Your task to perform on an android device: turn on showing notifications on the lock screen Image 0: 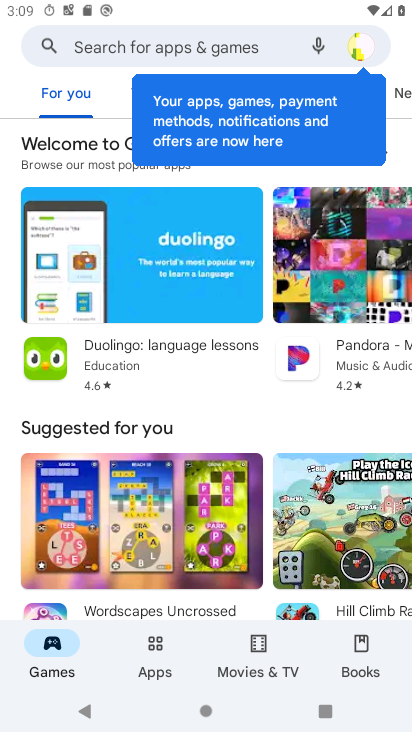
Step 0: press home button
Your task to perform on an android device: turn on showing notifications on the lock screen Image 1: 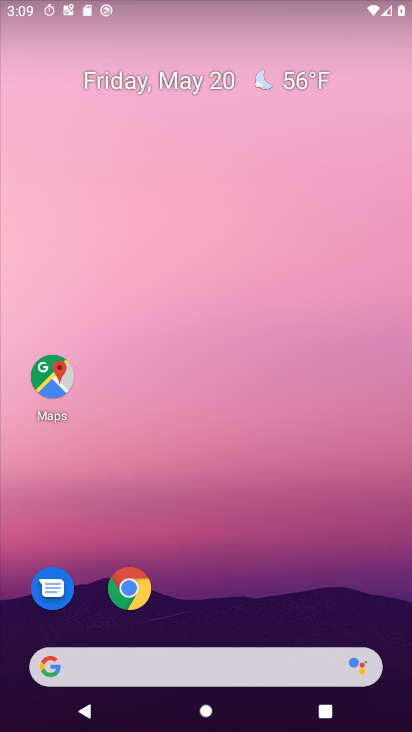
Step 1: drag from (19, 565) to (148, 284)
Your task to perform on an android device: turn on showing notifications on the lock screen Image 2: 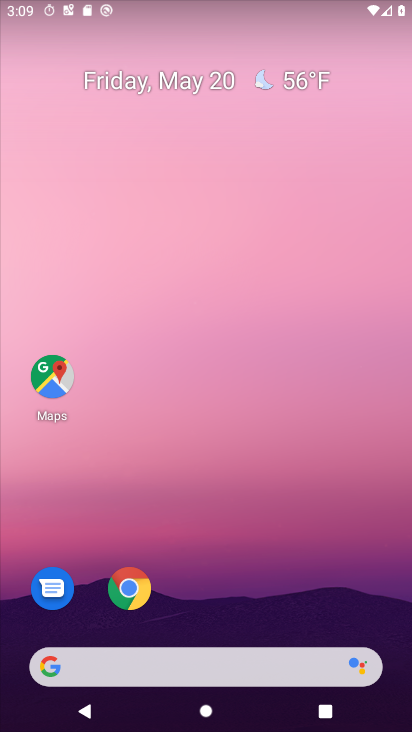
Step 2: drag from (13, 646) to (168, 195)
Your task to perform on an android device: turn on showing notifications on the lock screen Image 3: 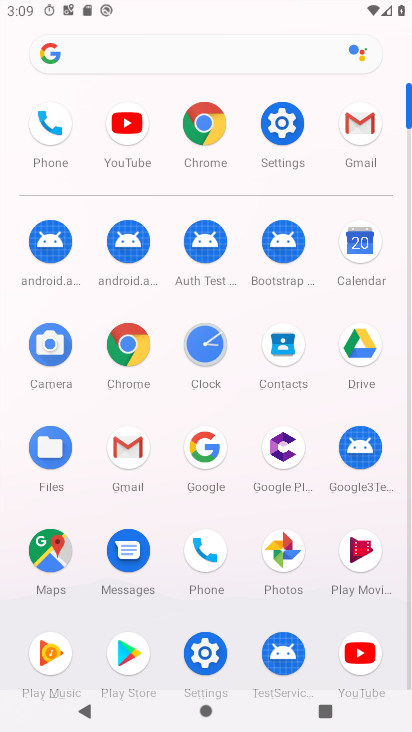
Step 3: click (278, 107)
Your task to perform on an android device: turn on showing notifications on the lock screen Image 4: 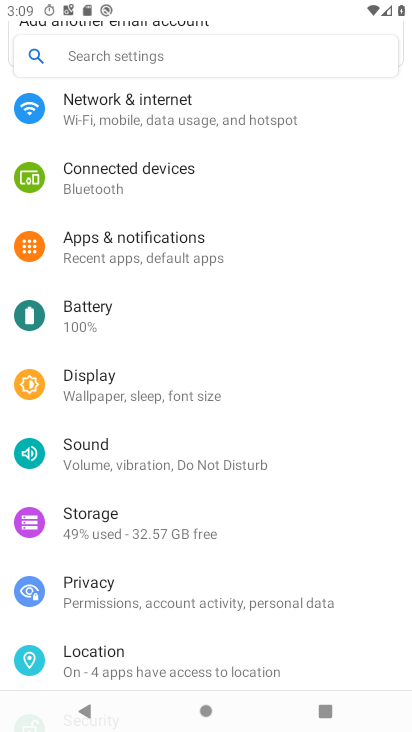
Step 4: click (131, 245)
Your task to perform on an android device: turn on showing notifications on the lock screen Image 5: 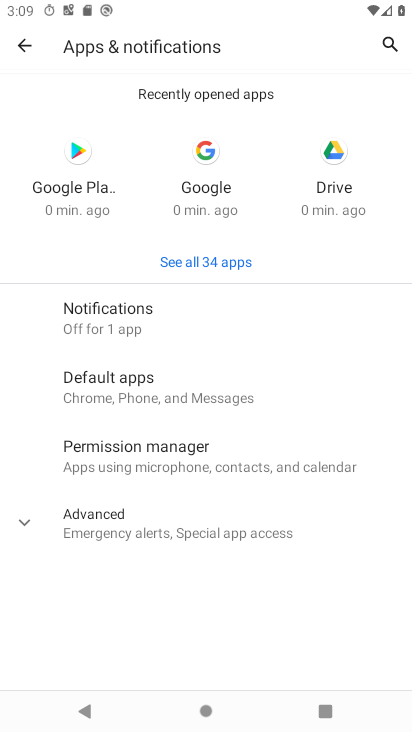
Step 5: click (79, 313)
Your task to perform on an android device: turn on showing notifications on the lock screen Image 6: 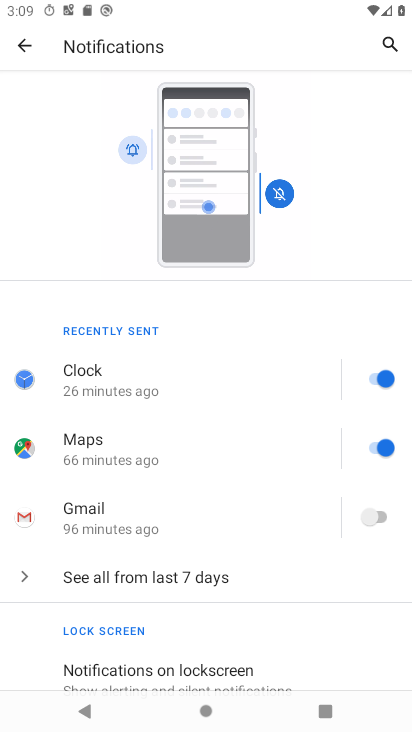
Step 6: click (118, 678)
Your task to perform on an android device: turn on showing notifications on the lock screen Image 7: 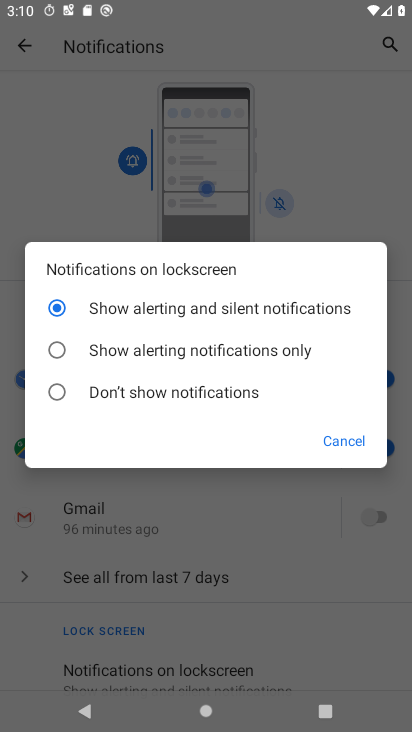
Step 7: task complete